Your task to perform on an android device: Go to Wikipedia Image 0: 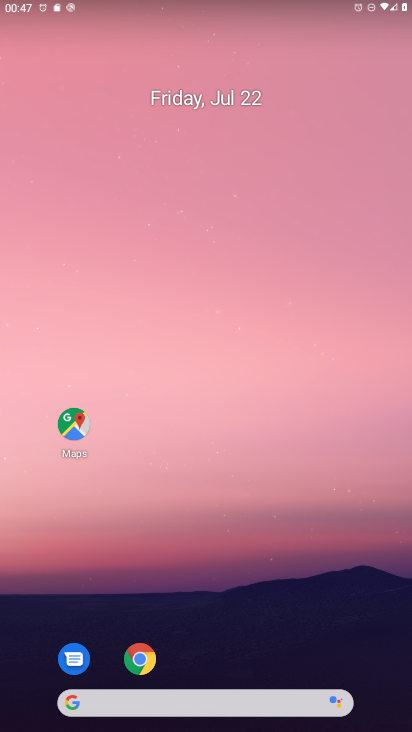
Step 0: click (140, 659)
Your task to perform on an android device: Go to Wikipedia Image 1: 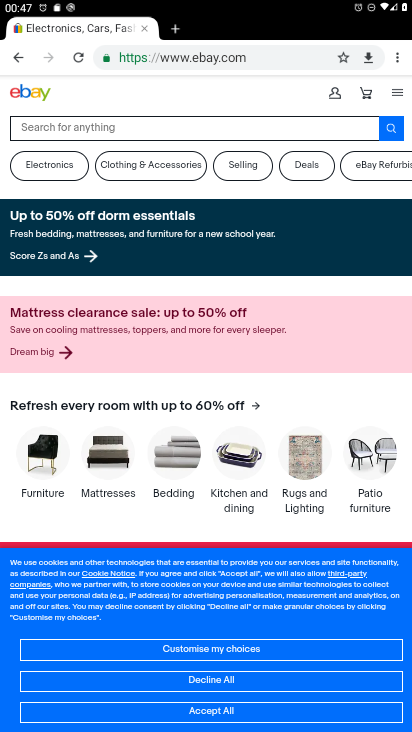
Step 1: click (290, 56)
Your task to perform on an android device: Go to Wikipedia Image 2: 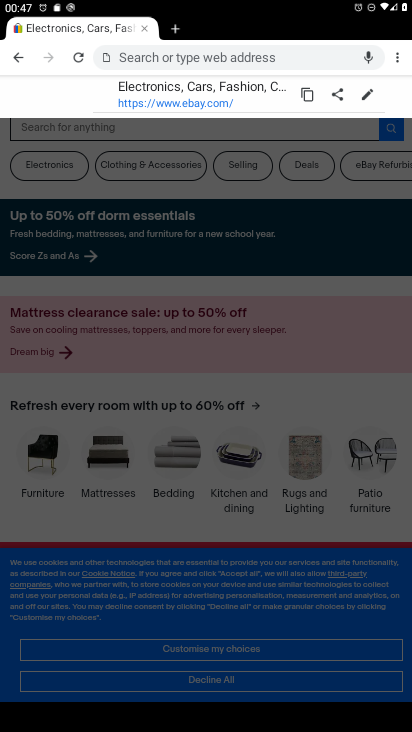
Step 2: type "Wikipedia"
Your task to perform on an android device: Go to Wikipedia Image 3: 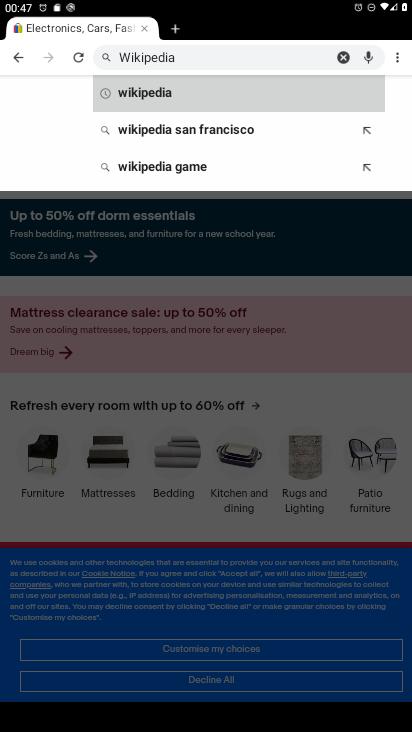
Step 3: click (204, 102)
Your task to perform on an android device: Go to Wikipedia Image 4: 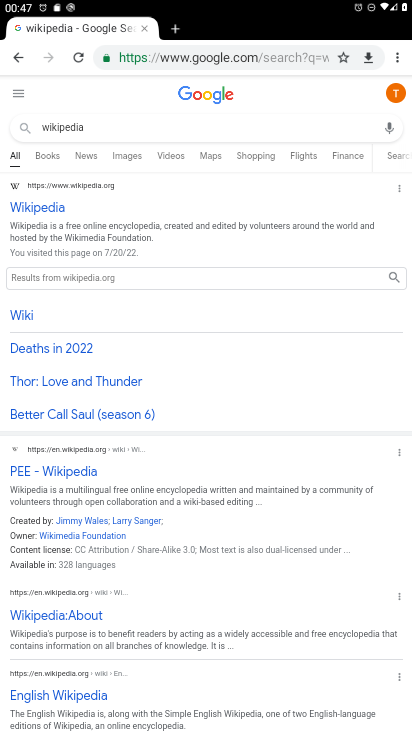
Step 4: click (45, 202)
Your task to perform on an android device: Go to Wikipedia Image 5: 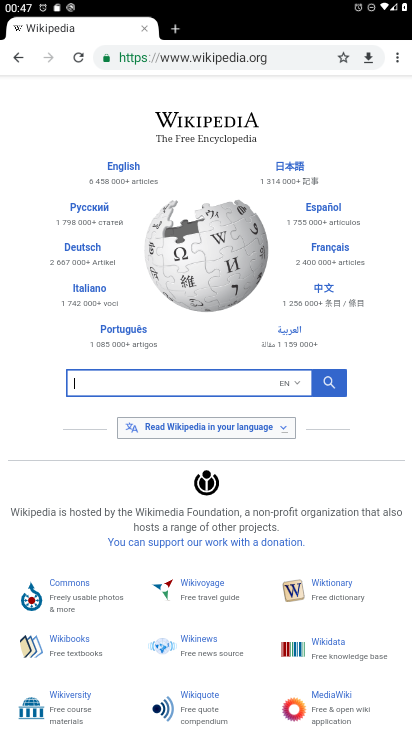
Step 5: task complete